Your task to perform on an android device: Open Youtube and go to "Your channel" Image 0: 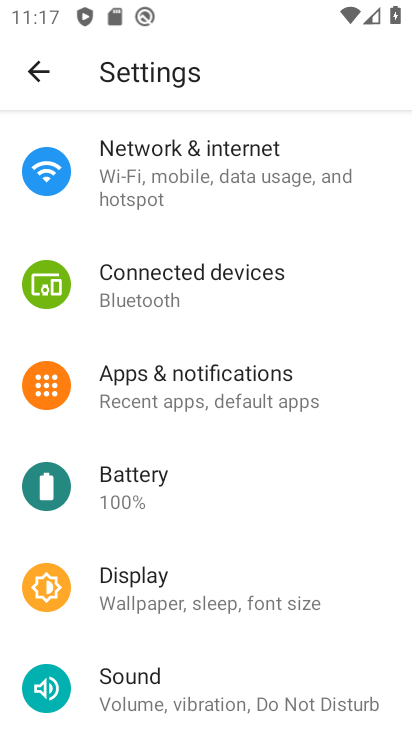
Step 0: press home button
Your task to perform on an android device: Open Youtube and go to "Your channel" Image 1: 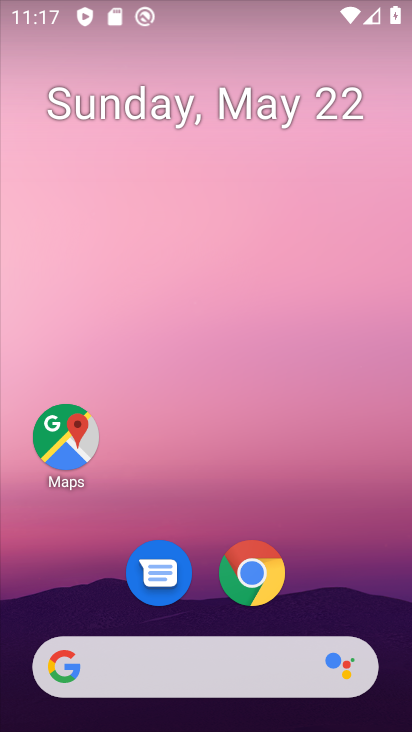
Step 1: drag from (195, 613) to (304, 14)
Your task to perform on an android device: Open Youtube and go to "Your channel" Image 2: 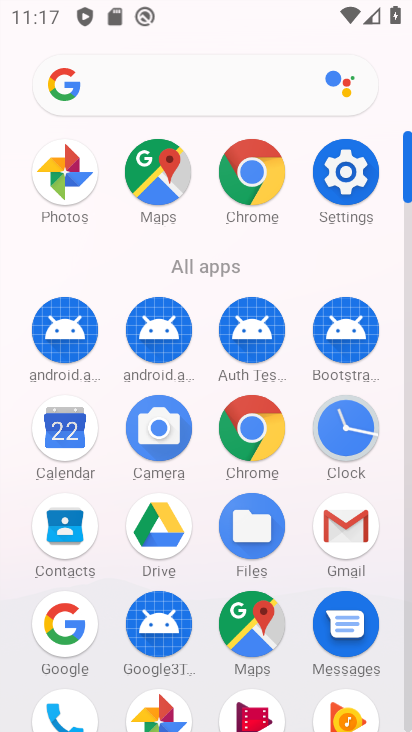
Step 2: drag from (294, 591) to (291, 130)
Your task to perform on an android device: Open Youtube and go to "Your channel" Image 3: 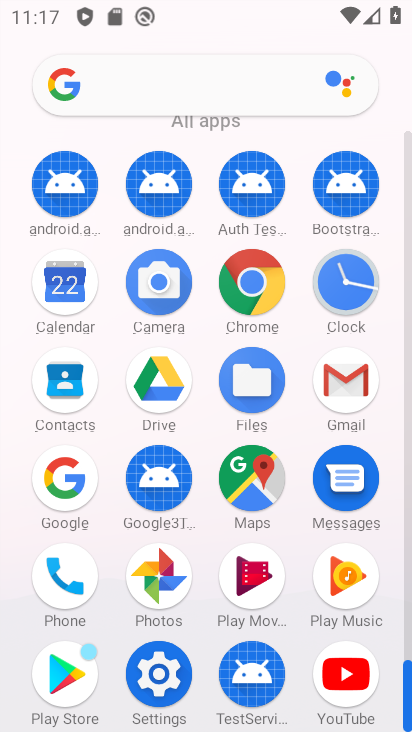
Step 3: click (347, 691)
Your task to perform on an android device: Open Youtube and go to "Your channel" Image 4: 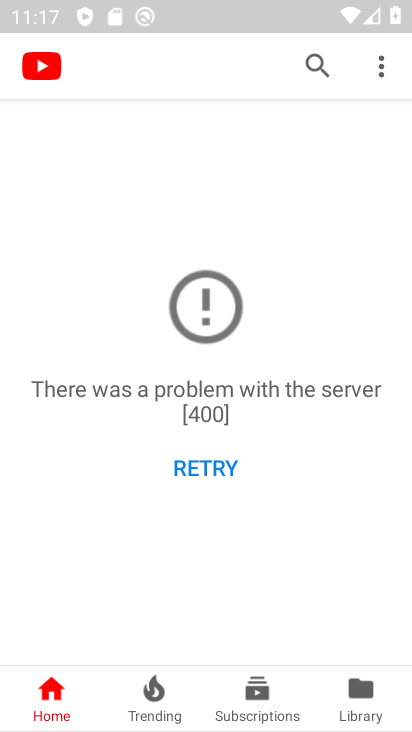
Step 4: click (216, 469)
Your task to perform on an android device: Open Youtube and go to "Your channel" Image 5: 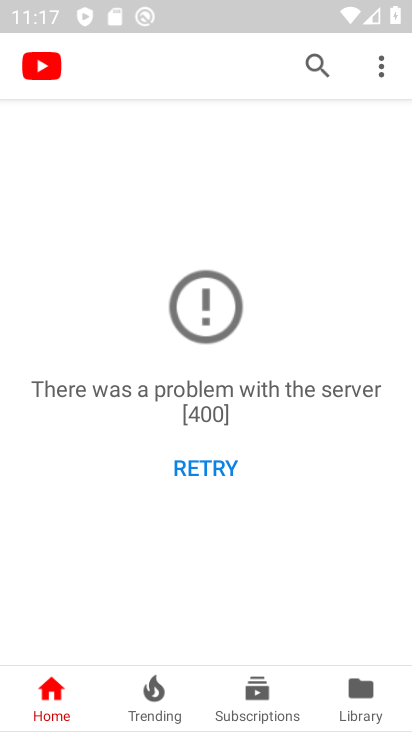
Step 5: click (207, 463)
Your task to perform on an android device: Open Youtube and go to "Your channel" Image 6: 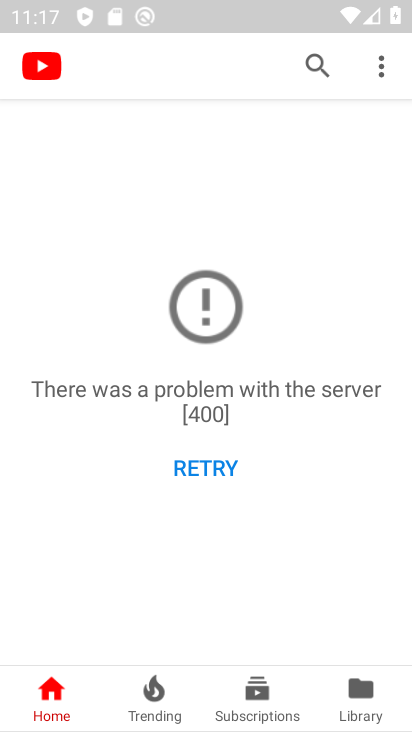
Step 6: click (383, 61)
Your task to perform on an android device: Open Youtube and go to "Your channel" Image 7: 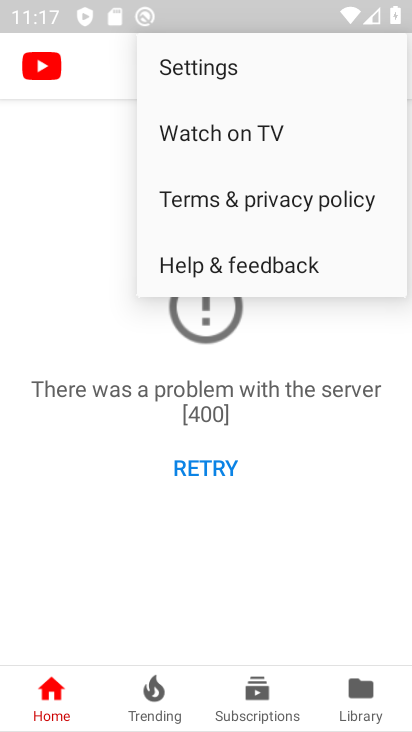
Step 7: click (218, 76)
Your task to perform on an android device: Open Youtube and go to "Your channel" Image 8: 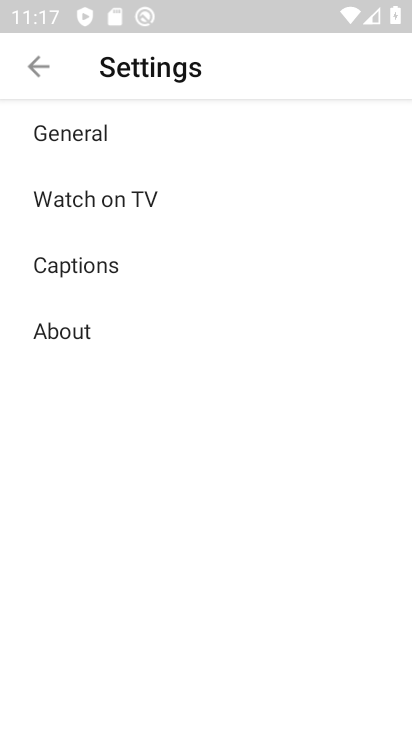
Step 8: task complete